Your task to perform on an android device: Search for seafood restaurants on Google Maps Image 0: 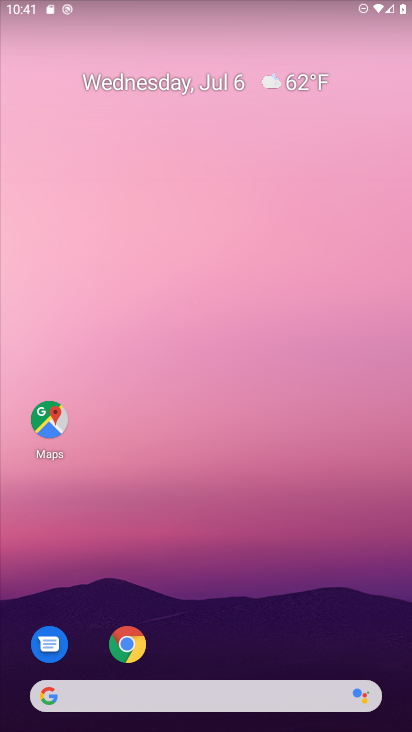
Step 0: press home button
Your task to perform on an android device: Search for seafood restaurants on Google Maps Image 1: 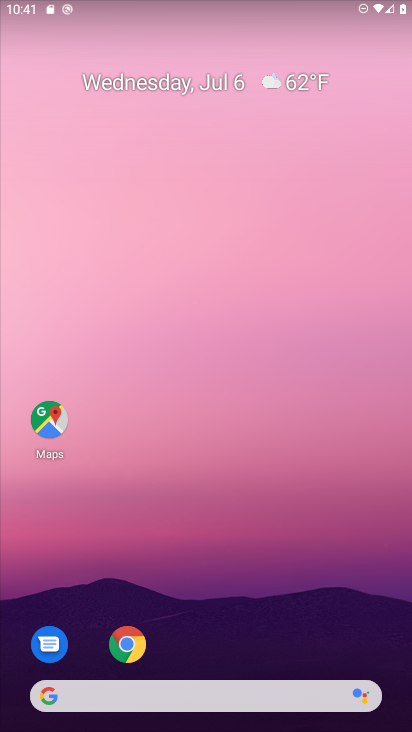
Step 1: click (42, 419)
Your task to perform on an android device: Search for seafood restaurants on Google Maps Image 2: 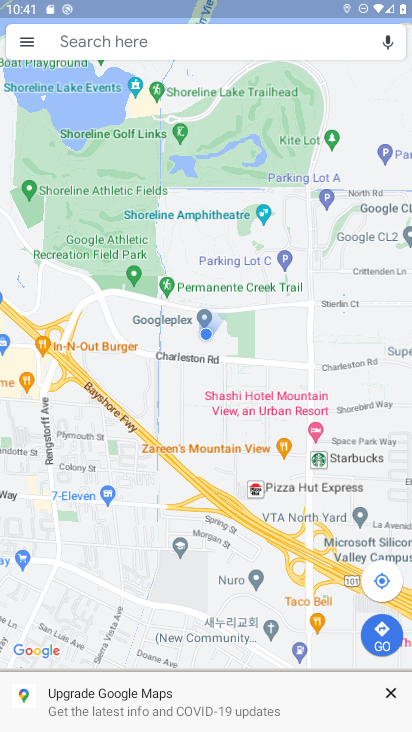
Step 2: click (94, 38)
Your task to perform on an android device: Search for seafood restaurants on Google Maps Image 3: 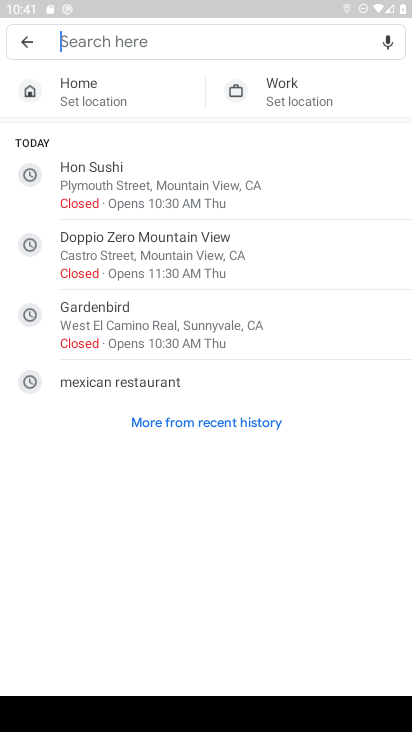
Step 3: type "seafood restaurants"
Your task to perform on an android device: Search for seafood restaurants on Google Maps Image 4: 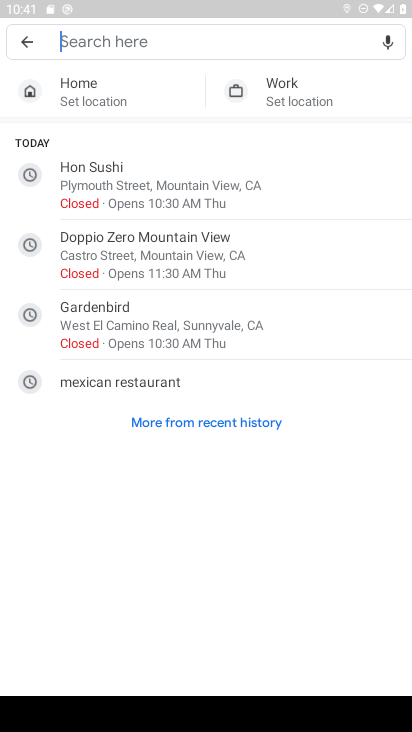
Step 4: click (136, 30)
Your task to perform on an android device: Search for seafood restaurants on Google Maps Image 5: 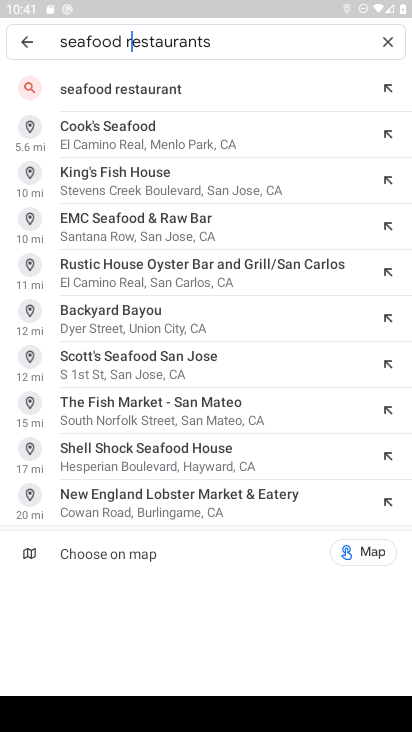
Step 5: press enter
Your task to perform on an android device: Search for seafood restaurants on Google Maps Image 6: 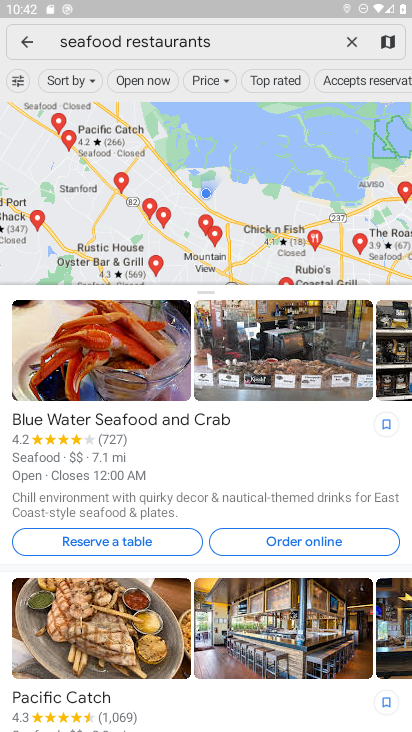
Step 6: task complete